Your task to perform on an android device: turn on priority inbox in the gmail app Image 0: 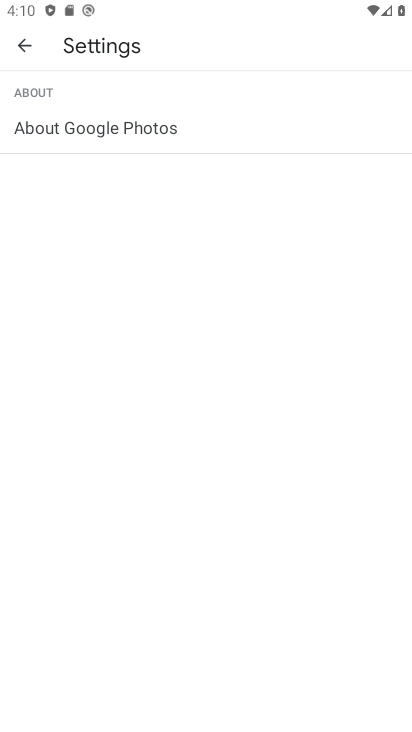
Step 0: press home button
Your task to perform on an android device: turn on priority inbox in the gmail app Image 1: 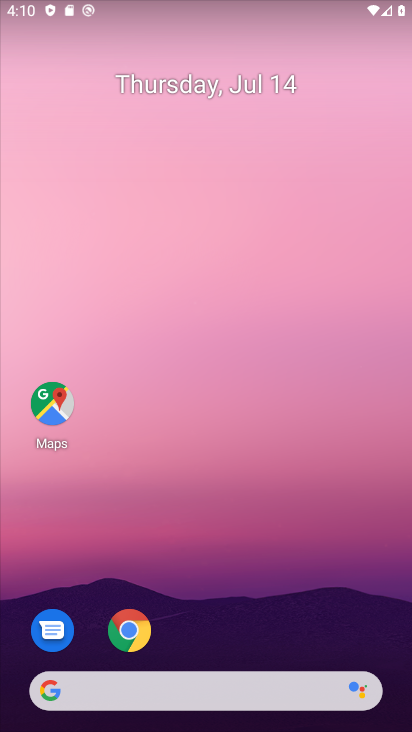
Step 1: drag from (215, 655) to (277, 6)
Your task to perform on an android device: turn on priority inbox in the gmail app Image 2: 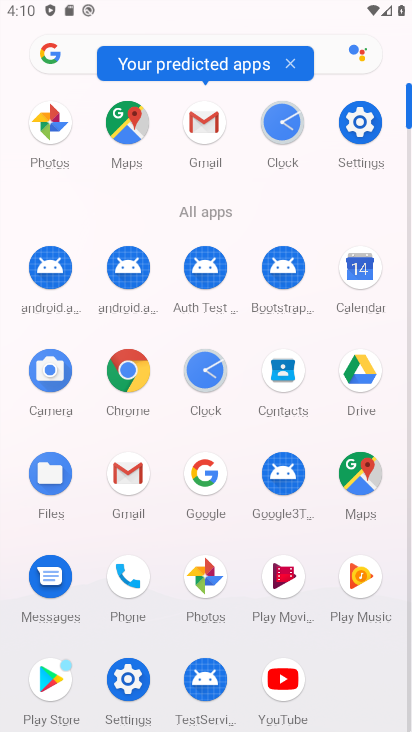
Step 2: click (194, 117)
Your task to perform on an android device: turn on priority inbox in the gmail app Image 3: 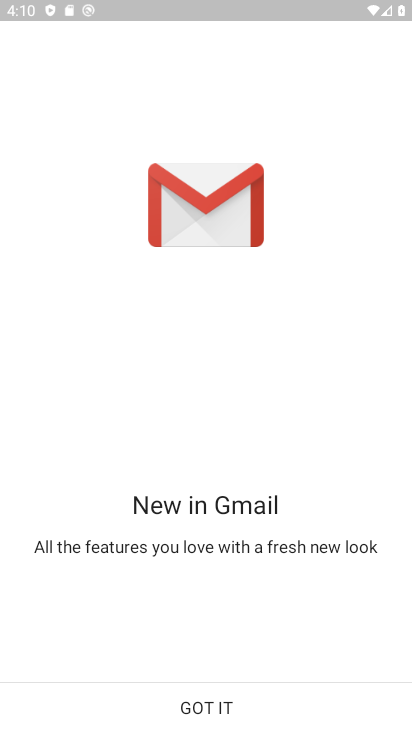
Step 3: click (222, 699)
Your task to perform on an android device: turn on priority inbox in the gmail app Image 4: 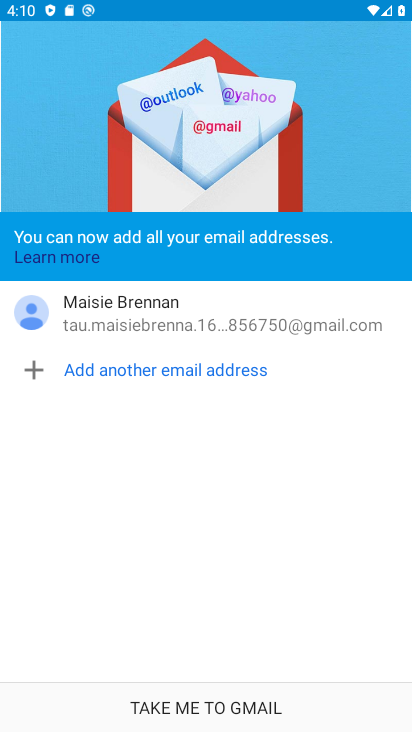
Step 4: click (222, 699)
Your task to perform on an android device: turn on priority inbox in the gmail app Image 5: 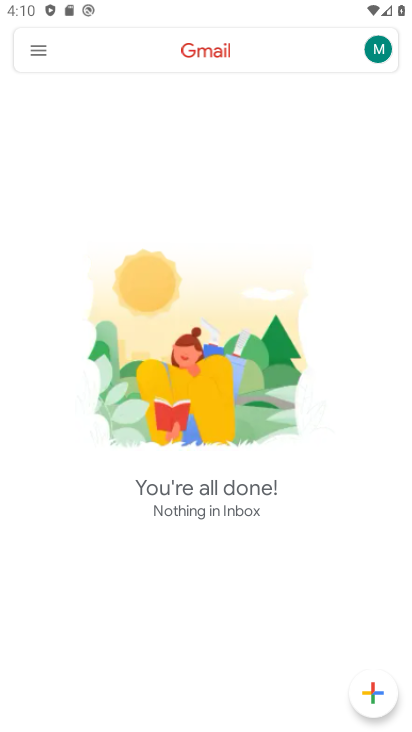
Step 5: click (41, 47)
Your task to perform on an android device: turn on priority inbox in the gmail app Image 6: 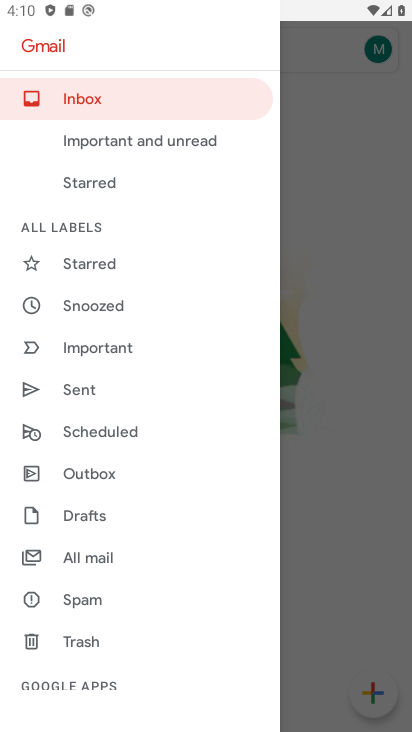
Step 6: drag from (87, 672) to (159, 207)
Your task to perform on an android device: turn on priority inbox in the gmail app Image 7: 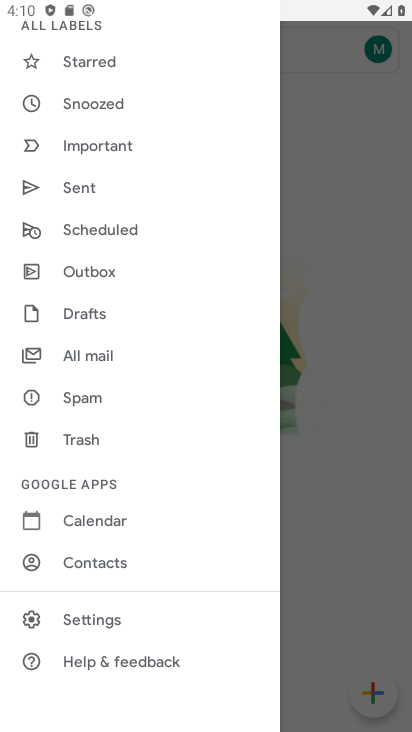
Step 7: click (86, 613)
Your task to perform on an android device: turn on priority inbox in the gmail app Image 8: 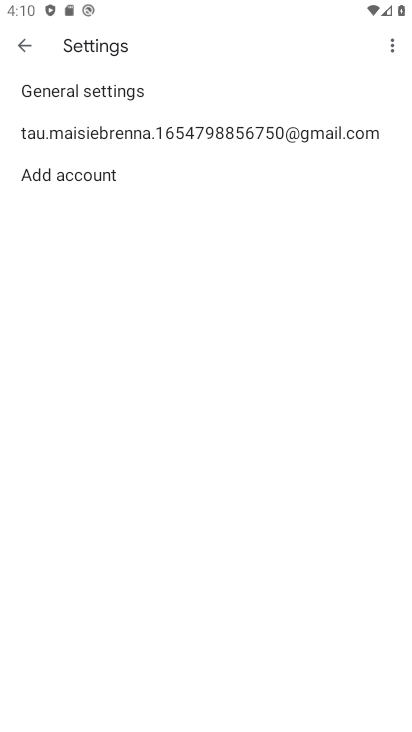
Step 8: click (311, 146)
Your task to perform on an android device: turn on priority inbox in the gmail app Image 9: 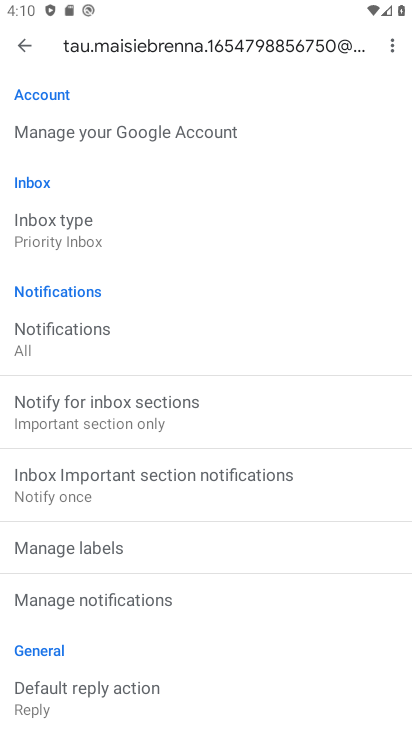
Step 9: click (92, 242)
Your task to perform on an android device: turn on priority inbox in the gmail app Image 10: 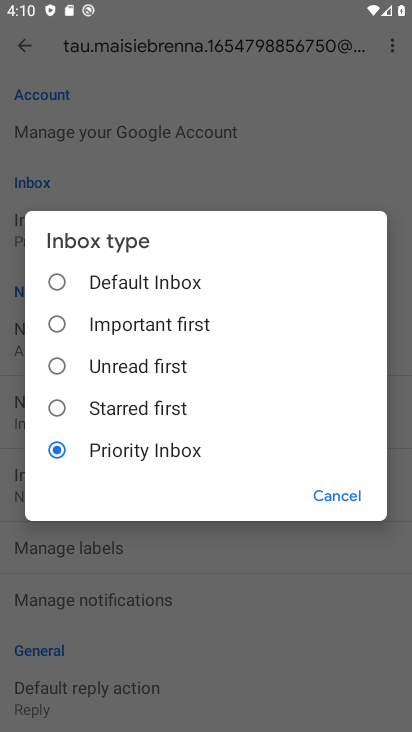
Step 10: task complete